Your task to perform on an android device: turn on sleep mode Image 0: 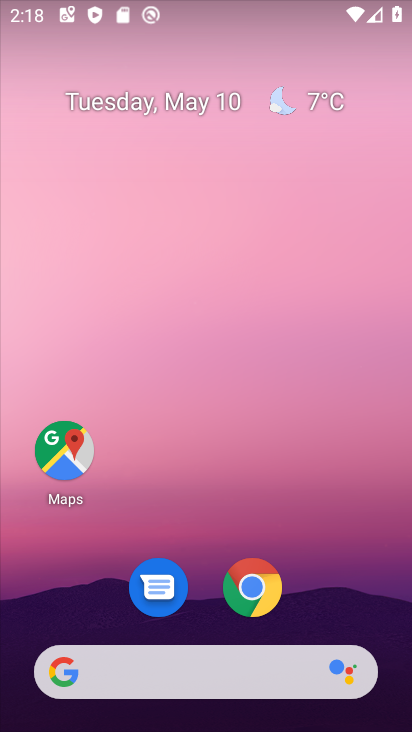
Step 0: drag from (343, 610) to (289, 69)
Your task to perform on an android device: turn on sleep mode Image 1: 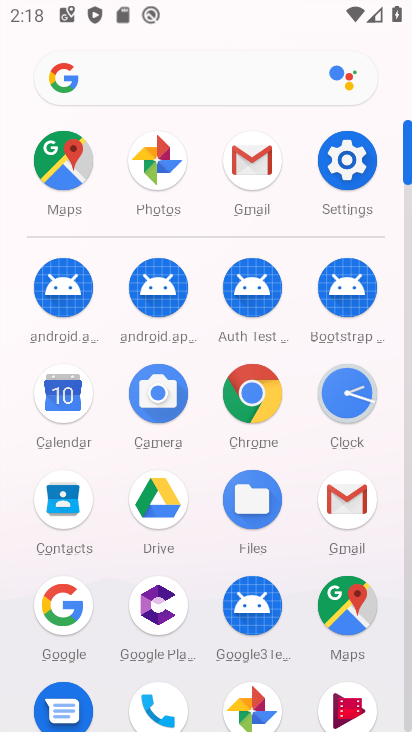
Step 1: click (346, 178)
Your task to perform on an android device: turn on sleep mode Image 2: 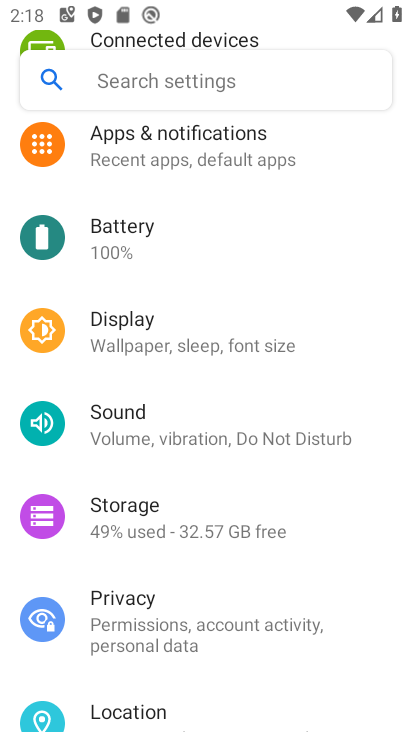
Step 2: click (134, 329)
Your task to perform on an android device: turn on sleep mode Image 3: 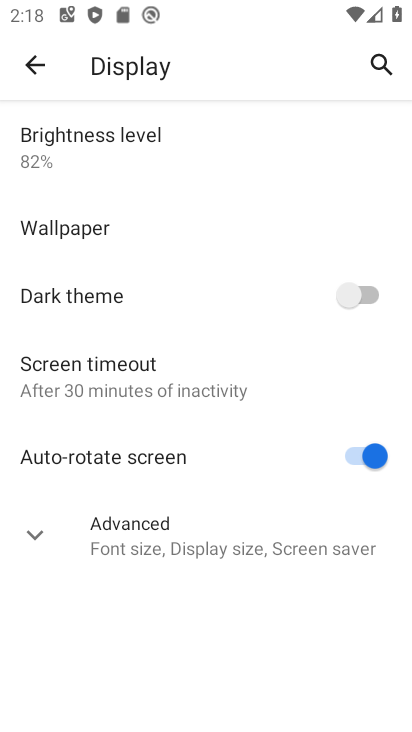
Step 3: task complete